Your task to perform on an android device: Turn on the flashlight Image 0: 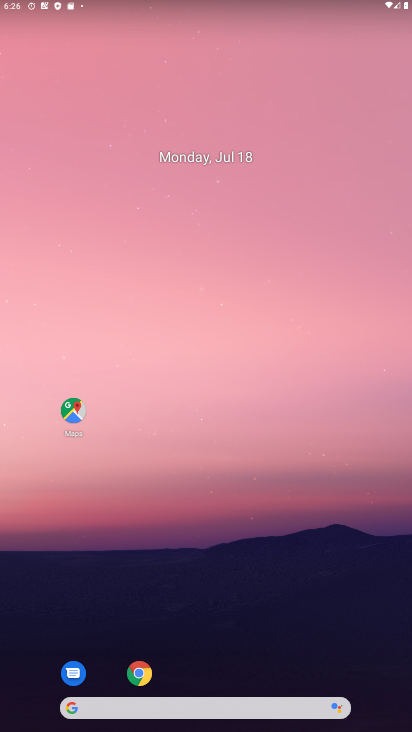
Step 0: drag from (219, 544) to (237, 156)
Your task to perform on an android device: Turn on the flashlight Image 1: 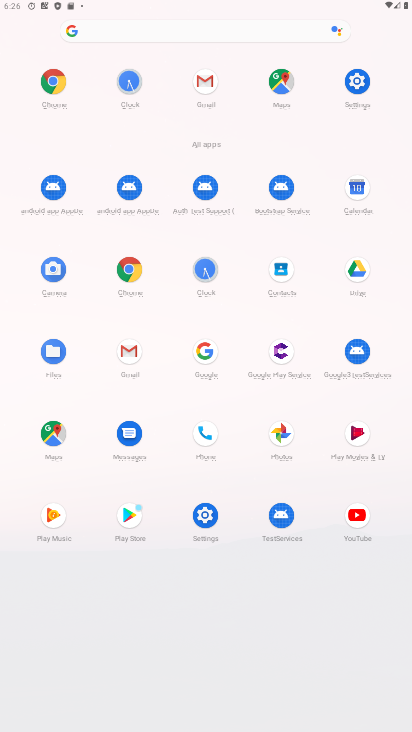
Step 1: click (205, 518)
Your task to perform on an android device: Turn on the flashlight Image 2: 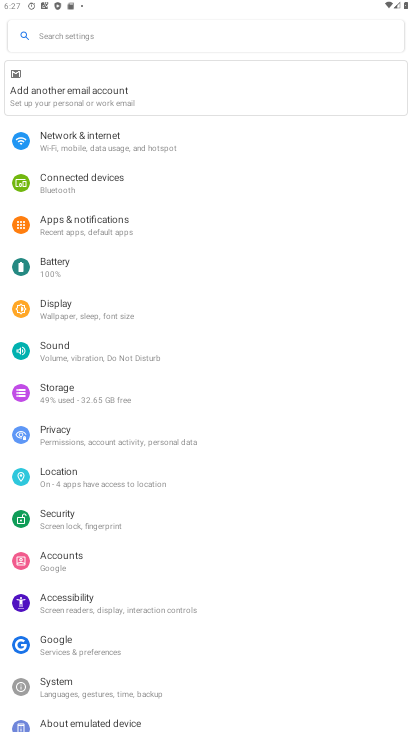
Step 2: task complete